Your task to perform on an android device: turn off javascript in the chrome app Image 0: 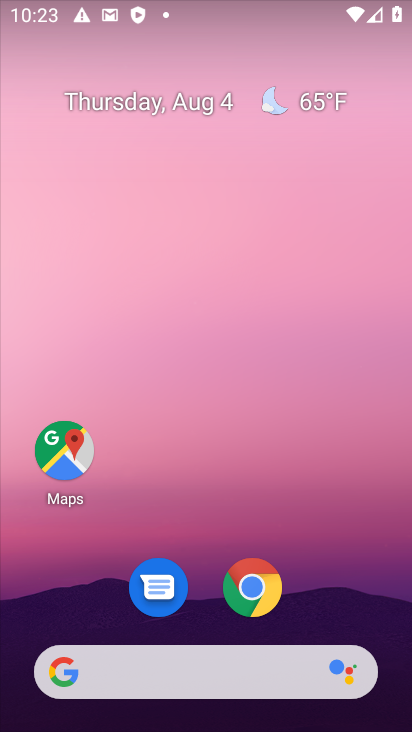
Step 0: drag from (198, 661) to (206, 295)
Your task to perform on an android device: turn off javascript in the chrome app Image 1: 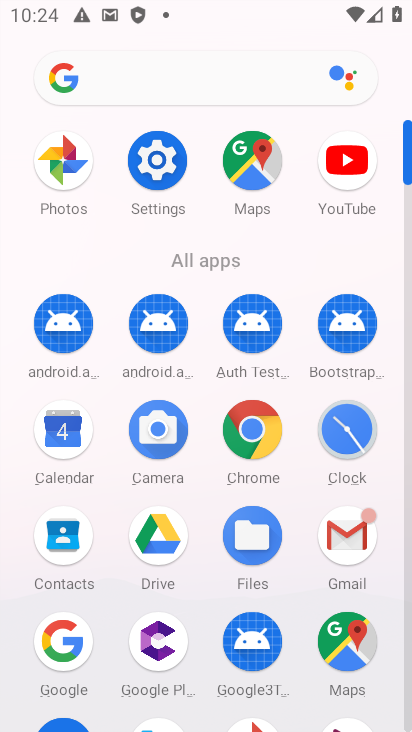
Step 1: click (252, 414)
Your task to perform on an android device: turn off javascript in the chrome app Image 2: 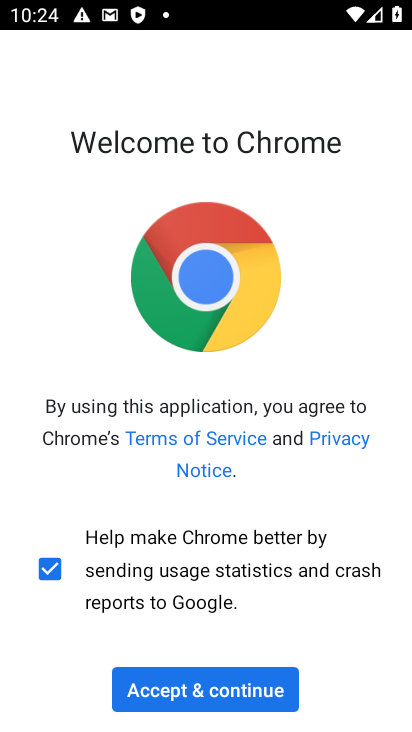
Step 2: click (215, 690)
Your task to perform on an android device: turn off javascript in the chrome app Image 3: 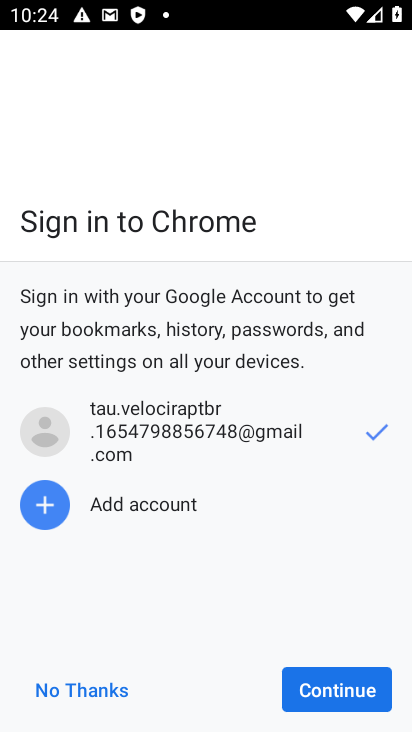
Step 3: click (323, 685)
Your task to perform on an android device: turn off javascript in the chrome app Image 4: 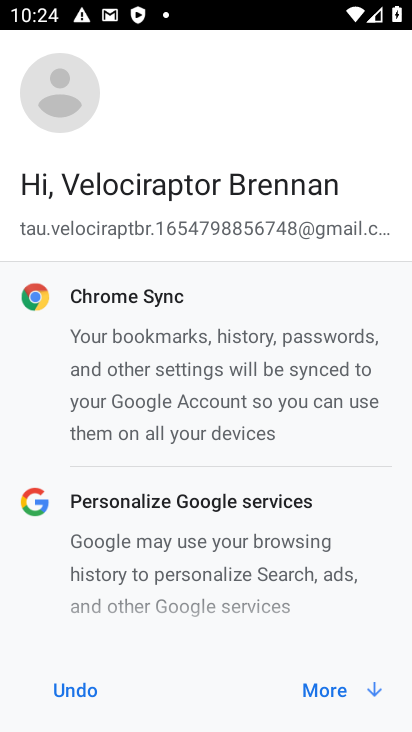
Step 4: click (309, 691)
Your task to perform on an android device: turn off javascript in the chrome app Image 5: 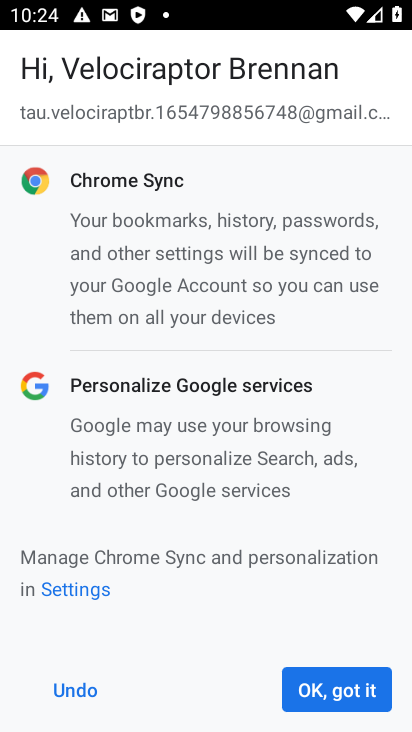
Step 5: click (351, 681)
Your task to perform on an android device: turn off javascript in the chrome app Image 6: 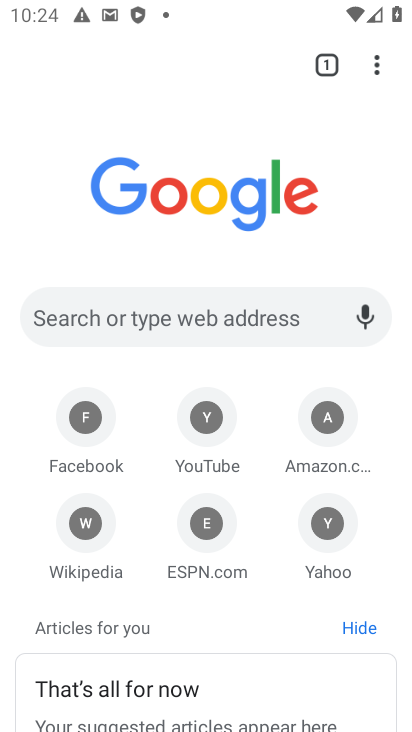
Step 6: click (383, 62)
Your task to perform on an android device: turn off javascript in the chrome app Image 7: 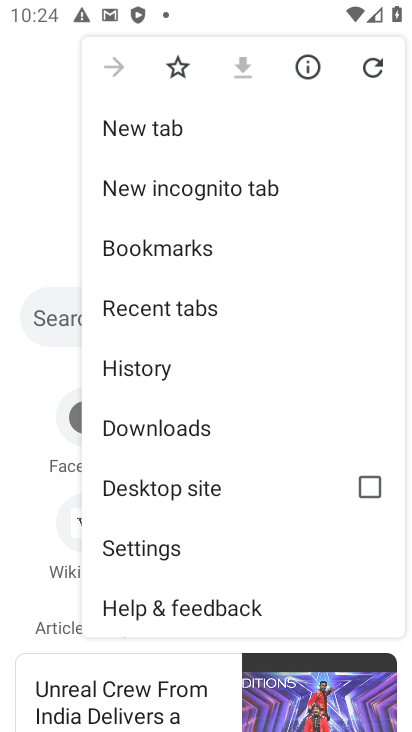
Step 7: click (163, 547)
Your task to perform on an android device: turn off javascript in the chrome app Image 8: 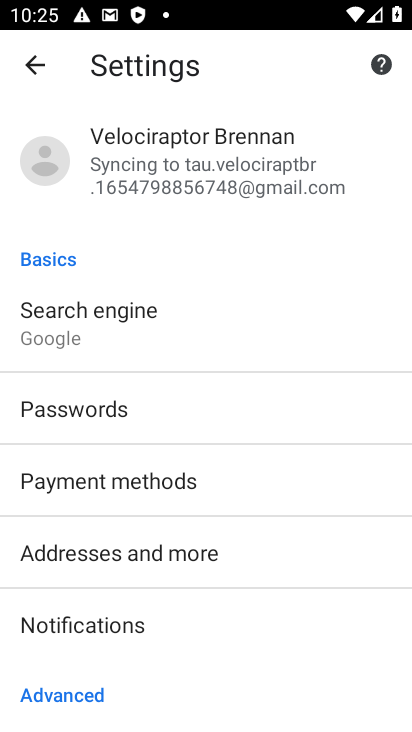
Step 8: drag from (168, 646) to (242, 180)
Your task to perform on an android device: turn off javascript in the chrome app Image 9: 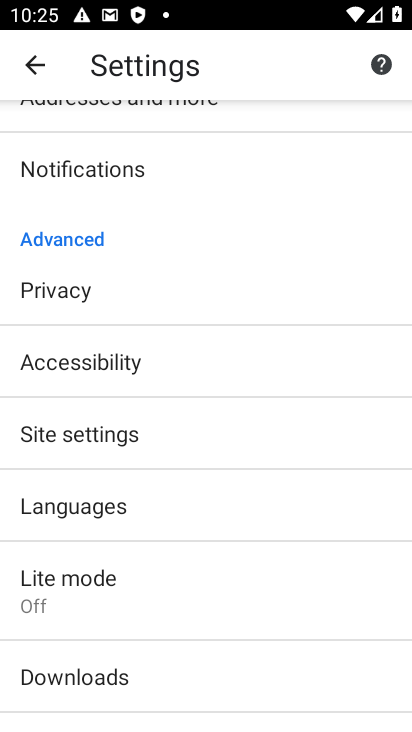
Step 9: click (144, 447)
Your task to perform on an android device: turn off javascript in the chrome app Image 10: 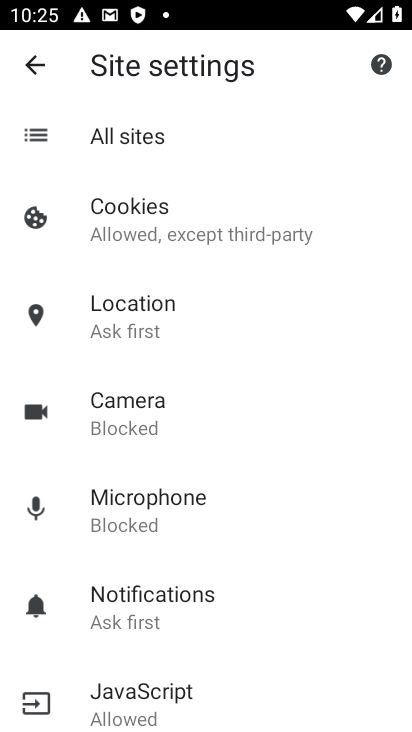
Step 10: click (157, 689)
Your task to perform on an android device: turn off javascript in the chrome app Image 11: 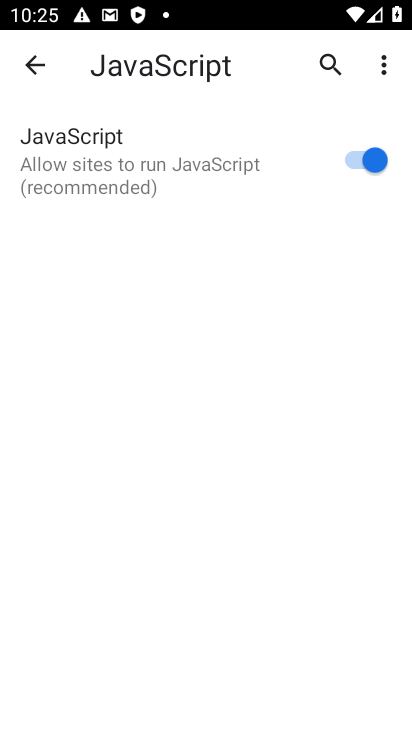
Step 11: click (380, 154)
Your task to perform on an android device: turn off javascript in the chrome app Image 12: 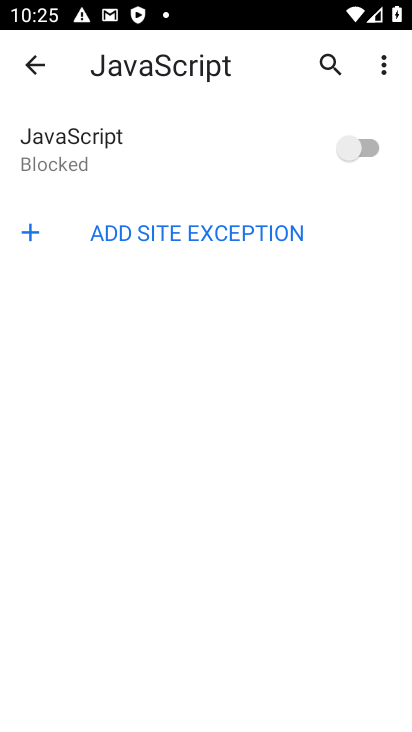
Step 12: task complete